Your task to perform on an android device: turn on translation in the chrome app Image 0: 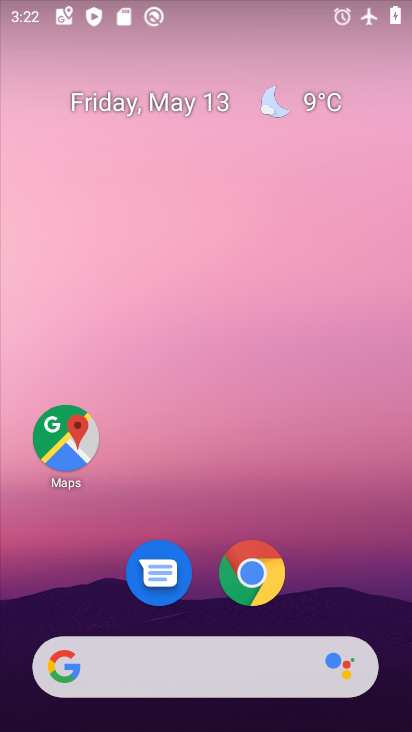
Step 0: click (252, 573)
Your task to perform on an android device: turn on translation in the chrome app Image 1: 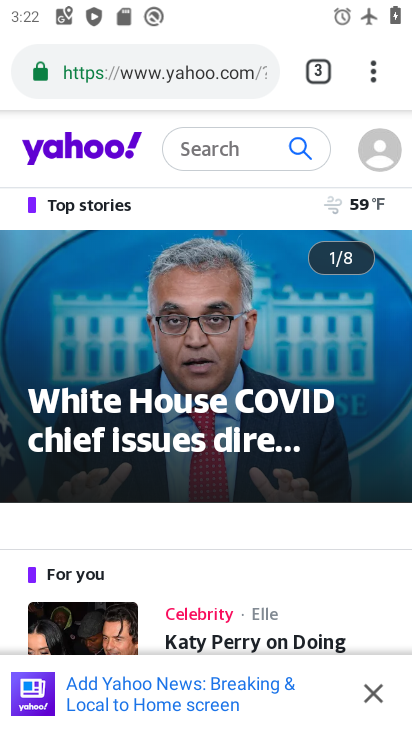
Step 1: click (377, 68)
Your task to perform on an android device: turn on translation in the chrome app Image 2: 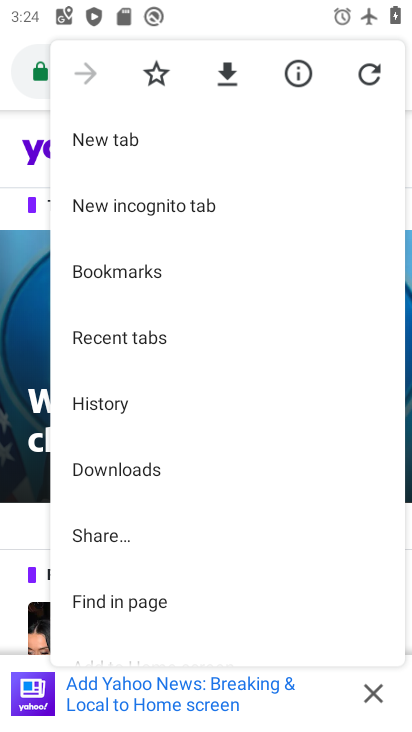
Step 2: drag from (163, 502) to (251, 343)
Your task to perform on an android device: turn on translation in the chrome app Image 3: 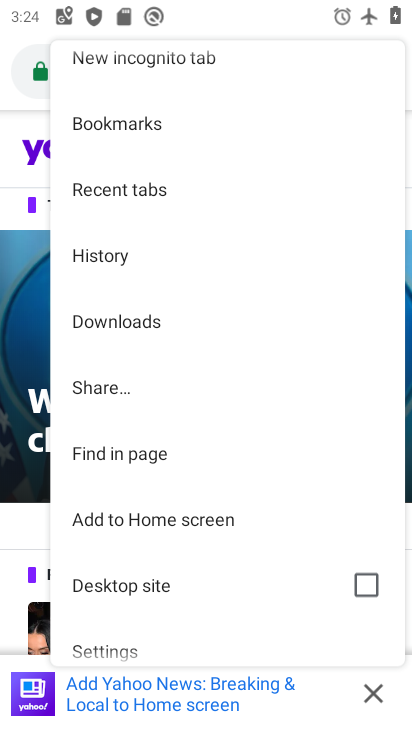
Step 3: drag from (172, 487) to (260, 369)
Your task to perform on an android device: turn on translation in the chrome app Image 4: 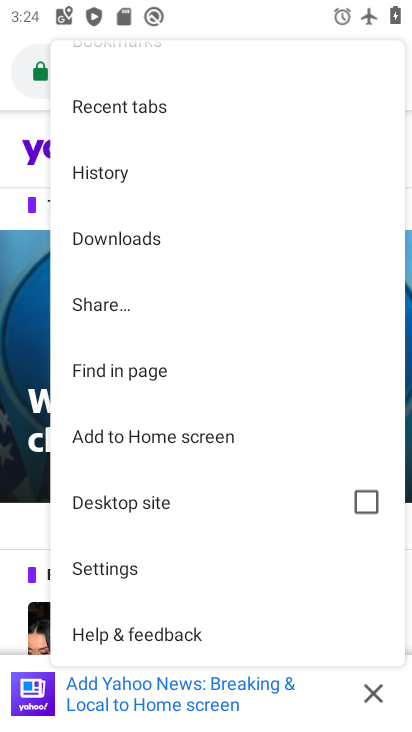
Step 4: click (101, 565)
Your task to perform on an android device: turn on translation in the chrome app Image 5: 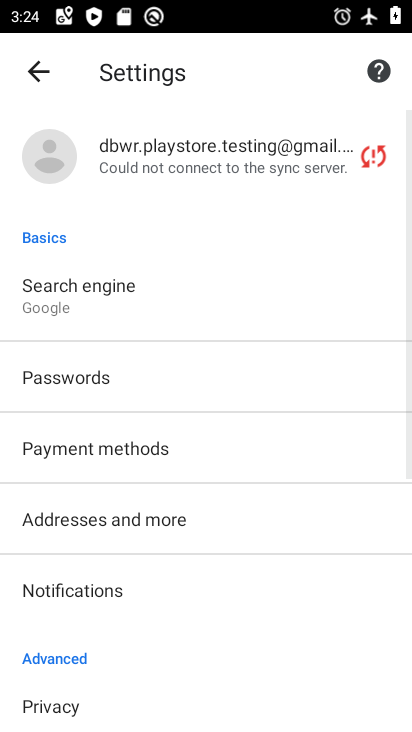
Step 5: drag from (97, 505) to (186, 372)
Your task to perform on an android device: turn on translation in the chrome app Image 6: 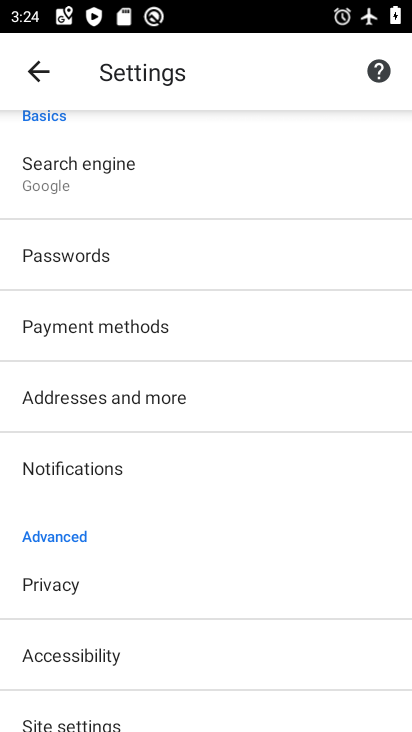
Step 6: drag from (117, 507) to (180, 380)
Your task to perform on an android device: turn on translation in the chrome app Image 7: 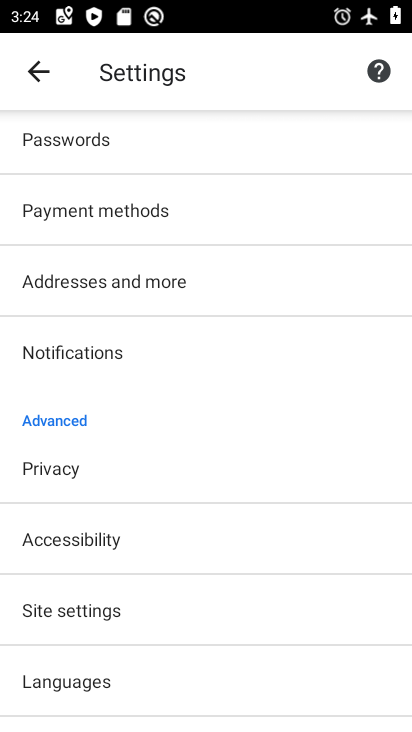
Step 7: drag from (102, 558) to (175, 424)
Your task to perform on an android device: turn on translation in the chrome app Image 8: 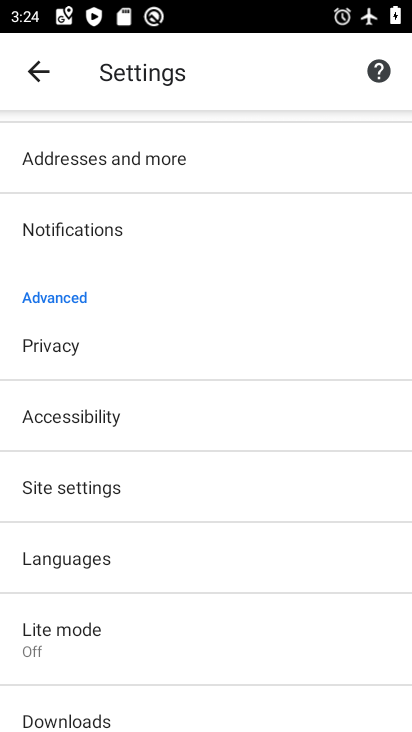
Step 8: click (76, 556)
Your task to perform on an android device: turn on translation in the chrome app Image 9: 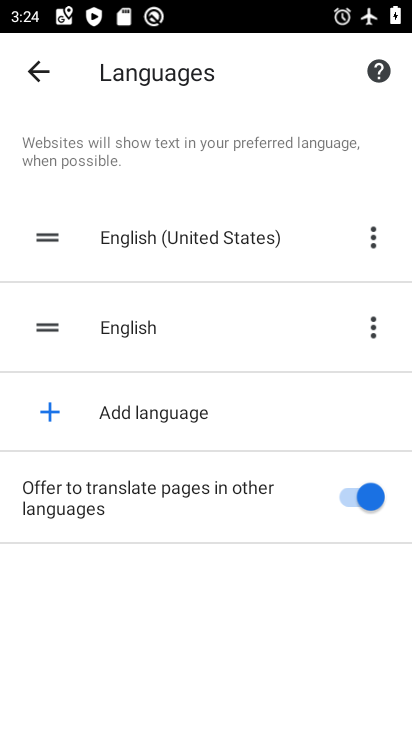
Step 9: task complete